Your task to perform on an android device: check battery use Image 0: 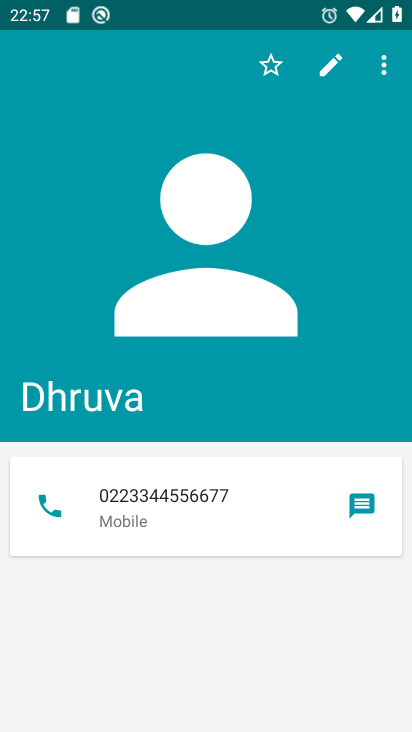
Step 0: press home button
Your task to perform on an android device: check battery use Image 1: 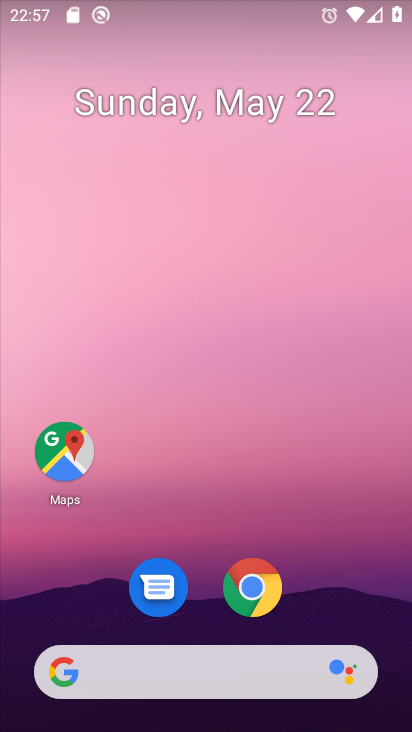
Step 1: drag from (211, 501) to (273, 22)
Your task to perform on an android device: check battery use Image 2: 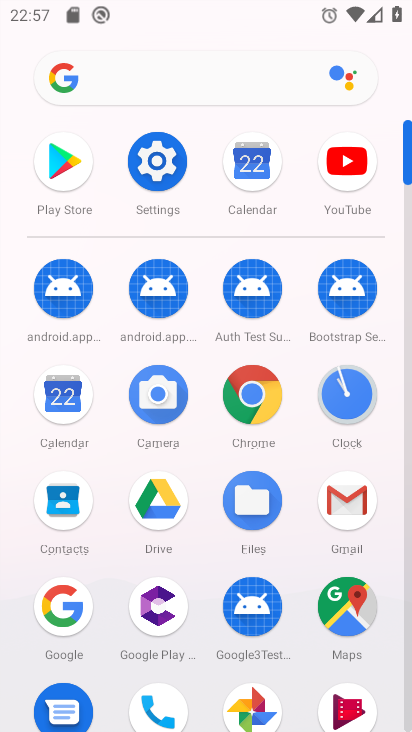
Step 2: click (162, 163)
Your task to perform on an android device: check battery use Image 3: 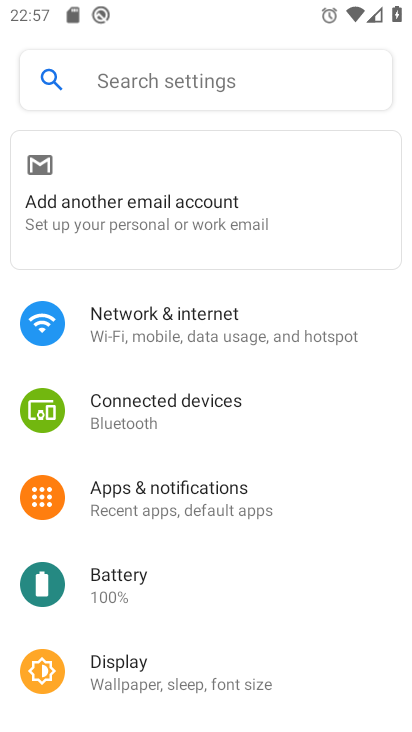
Step 3: click (180, 600)
Your task to perform on an android device: check battery use Image 4: 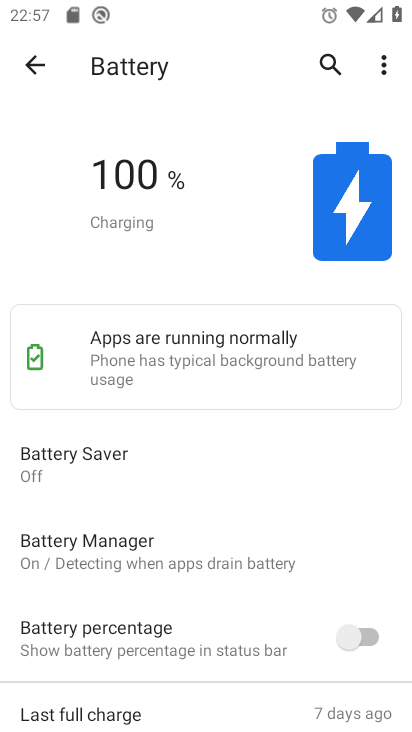
Step 4: click (383, 64)
Your task to perform on an android device: check battery use Image 5: 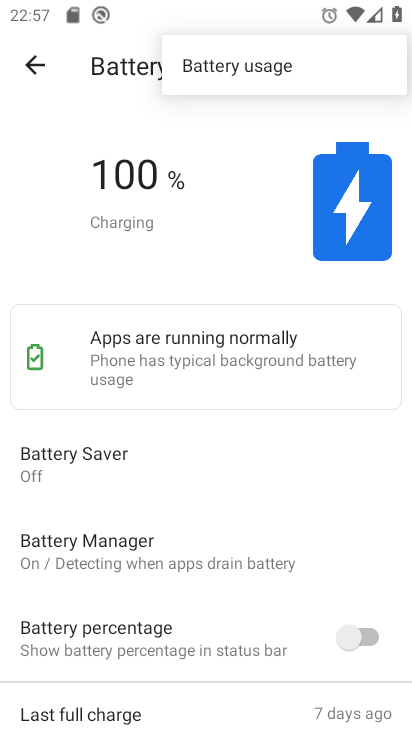
Step 5: click (269, 63)
Your task to perform on an android device: check battery use Image 6: 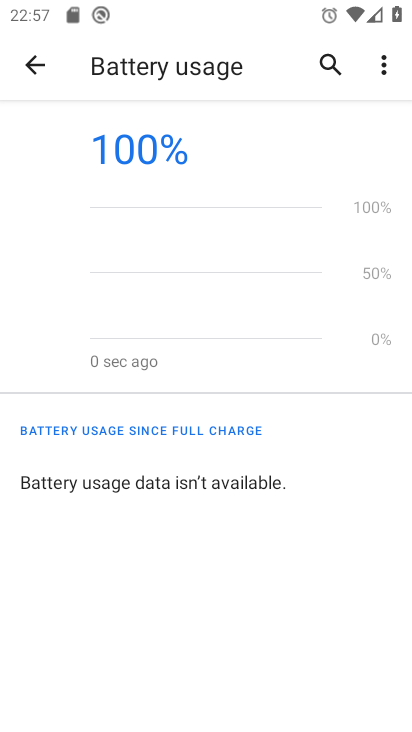
Step 6: task complete